Your task to perform on an android device: turn off wifi Image 0: 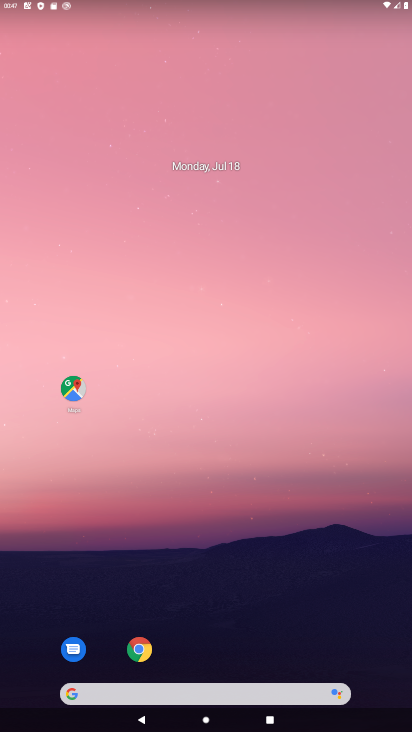
Step 0: drag from (186, 393) to (186, 330)
Your task to perform on an android device: turn off wifi Image 1: 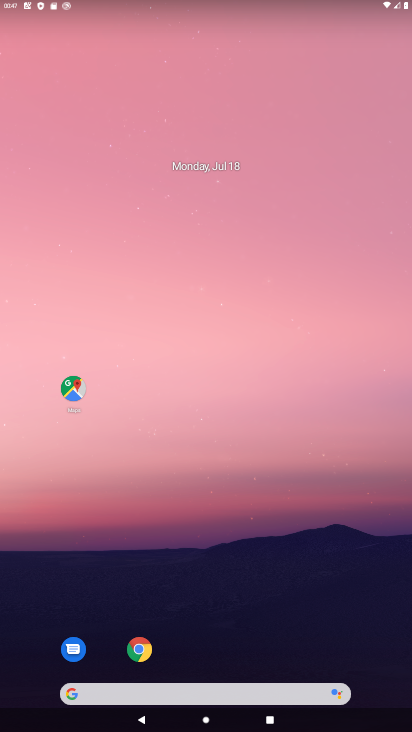
Step 1: drag from (184, 521) to (177, 134)
Your task to perform on an android device: turn off wifi Image 2: 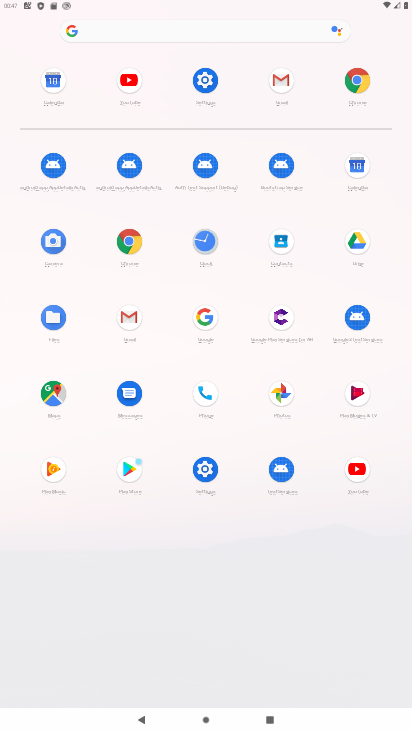
Step 2: click (206, 83)
Your task to perform on an android device: turn off wifi Image 3: 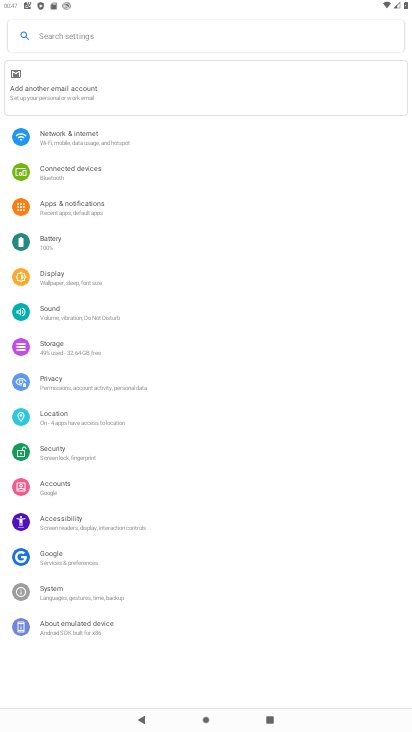
Step 3: click (92, 141)
Your task to perform on an android device: turn off wifi Image 4: 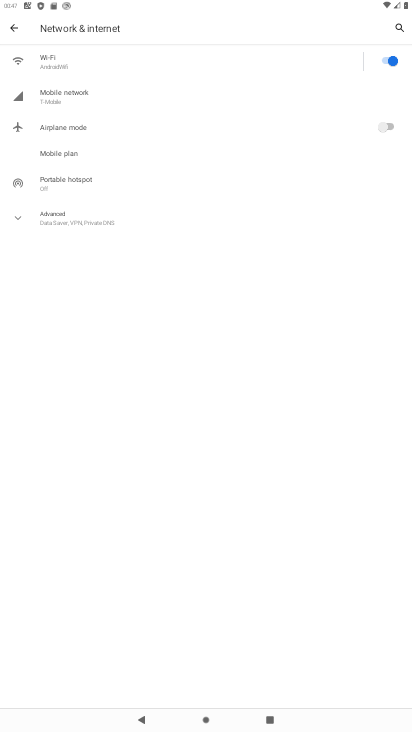
Step 4: click (388, 64)
Your task to perform on an android device: turn off wifi Image 5: 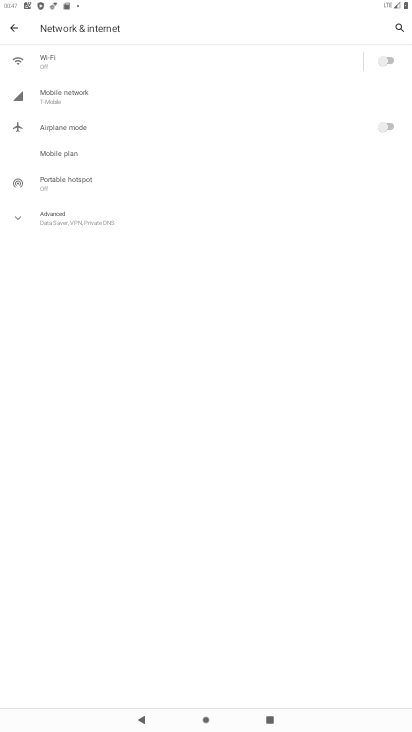
Step 5: task complete